Your task to perform on an android device: turn on wifi Image 0: 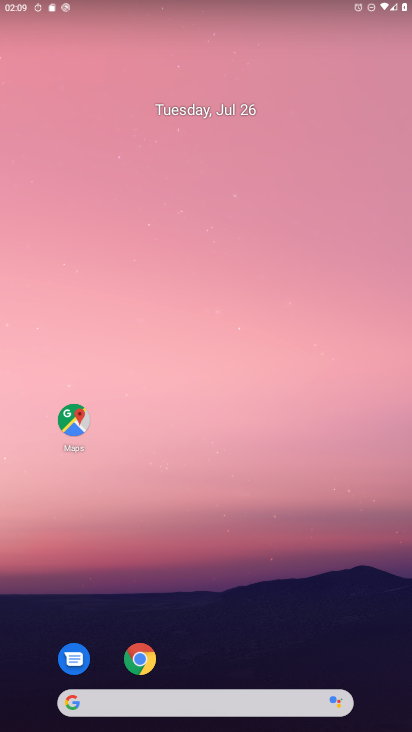
Step 0: drag from (285, 675) to (313, 55)
Your task to perform on an android device: turn on wifi Image 1: 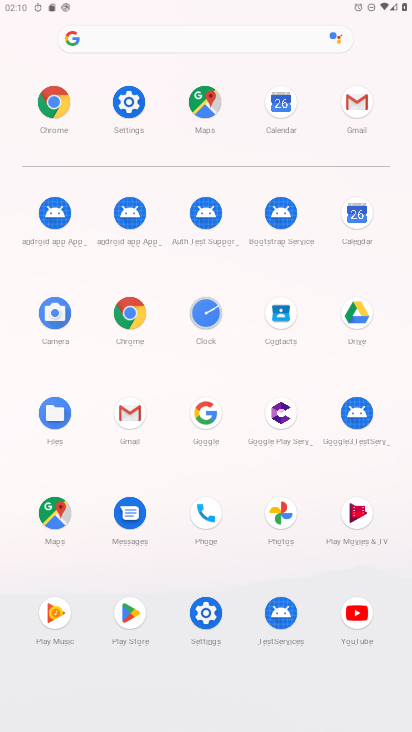
Step 1: task complete